Your task to perform on an android device: Go to battery settings Image 0: 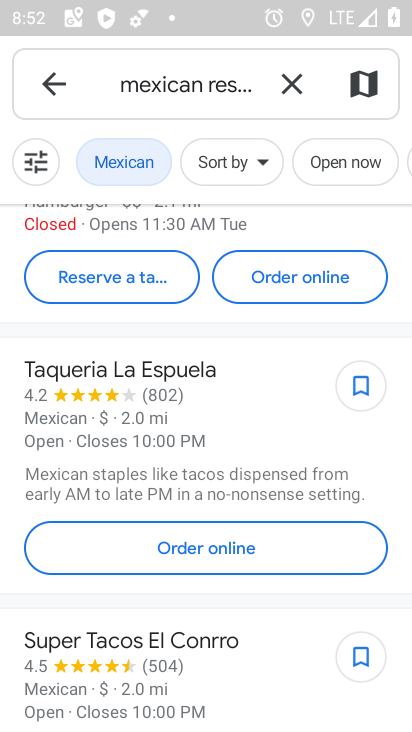
Step 0: press home button
Your task to perform on an android device: Go to battery settings Image 1: 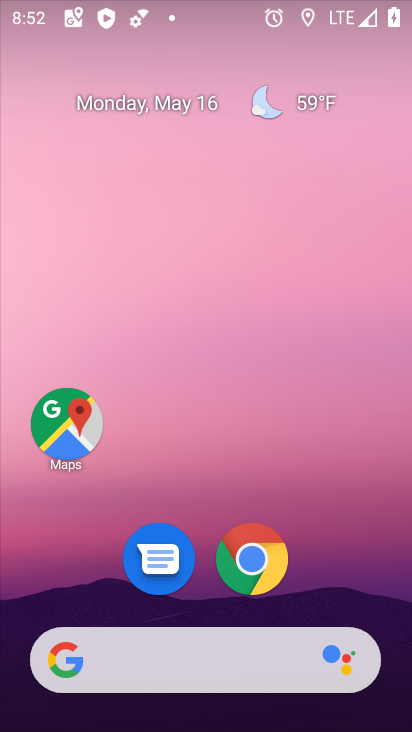
Step 1: drag from (344, 523) to (357, 76)
Your task to perform on an android device: Go to battery settings Image 2: 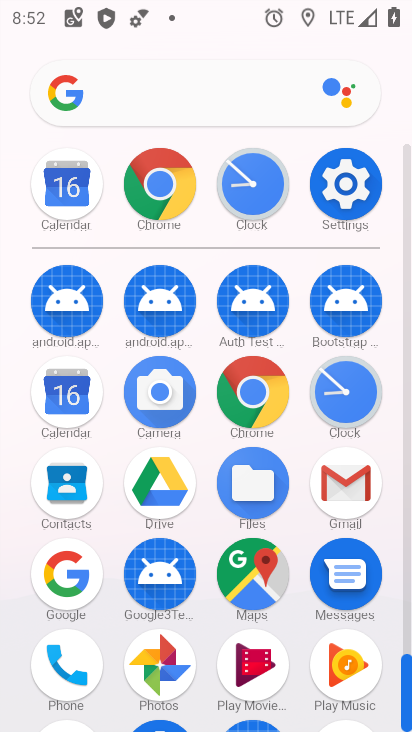
Step 2: click (340, 203)
Your task to perform on an android device: Go to battery settings Image 3: 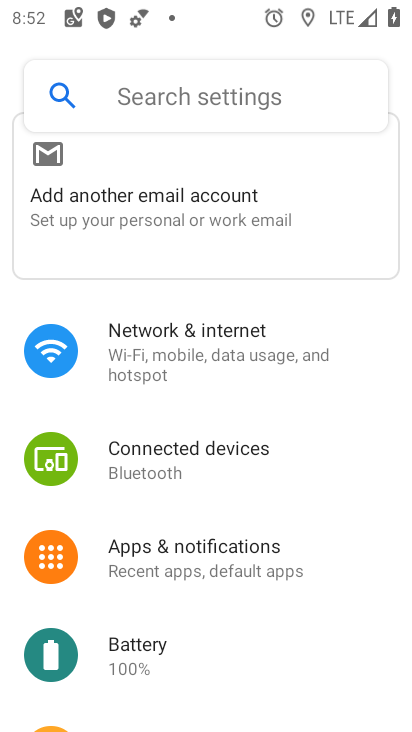
Step 3: click (201, 670)
Your task to perform on an android device: Go to battery settings Image 4: 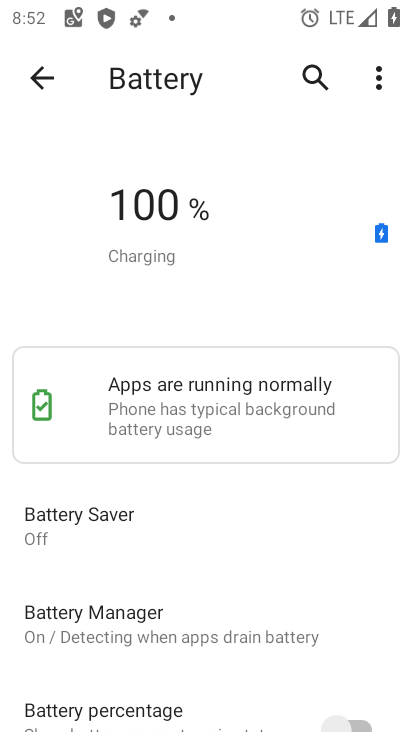
Step 4: task complete